Your task to perform on an android device: open wifi settings Image 0: 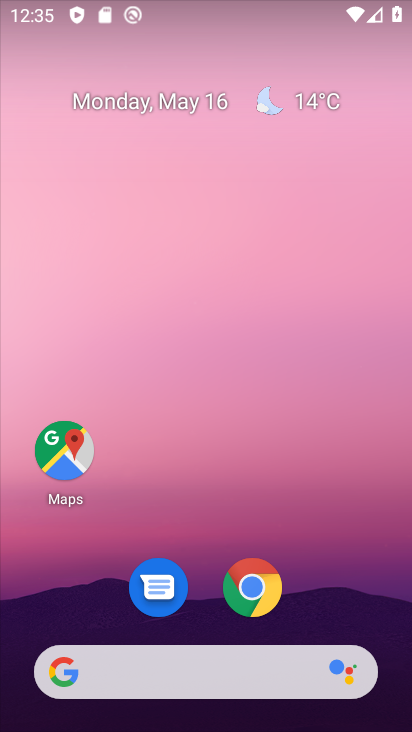
Step 0: drag from (212, 724) to (224, 294)
Your task to perform on an android device: open wifi settings Image 1: 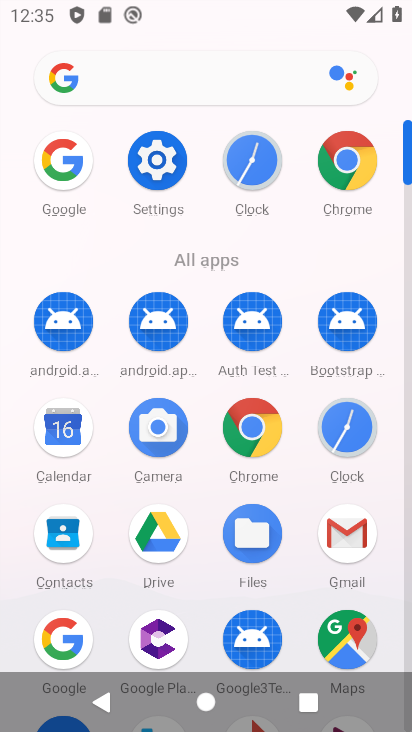
Step 1: click (156, 165)
Your task to perform on an android device: open wifi settings Image 2: 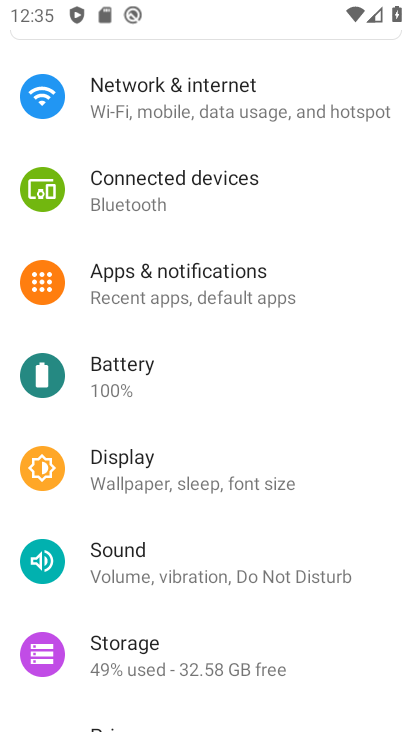
Step 2: drag from (279, 166) to (262, 474)
Your task to perform on an android device: open wifi settings Image 3: 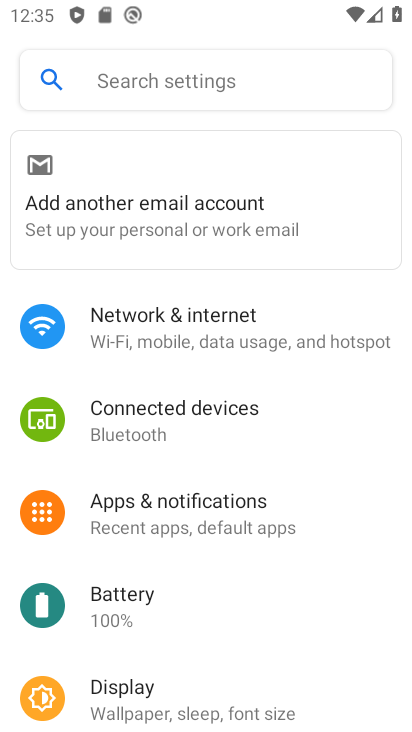
Step 3: click (127, 332)
Your task to perform on an android device: open wifi settings Image 4: 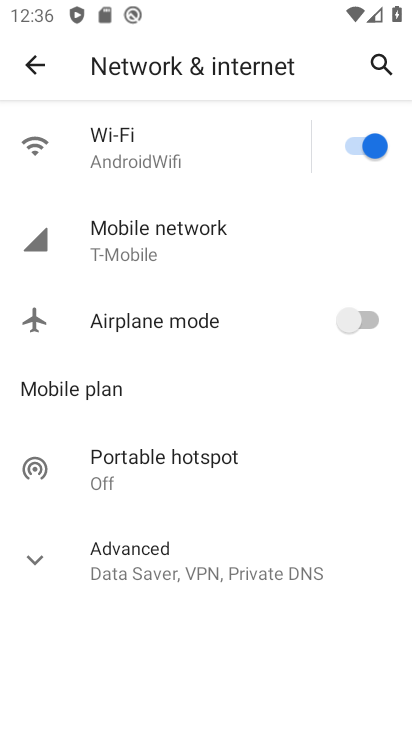
Step 4: click (122, 150)
Your task to perform on an android device: open wifi settings Image 5: 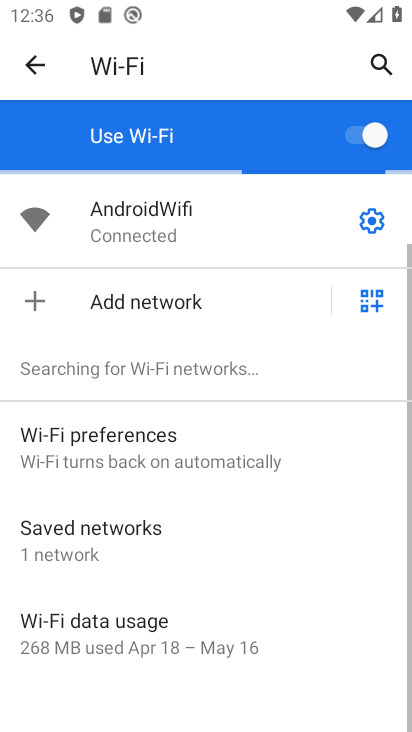
Step 5: task complete